Your task to perform on an android device: Show me popular videos on Youtube Image 0: 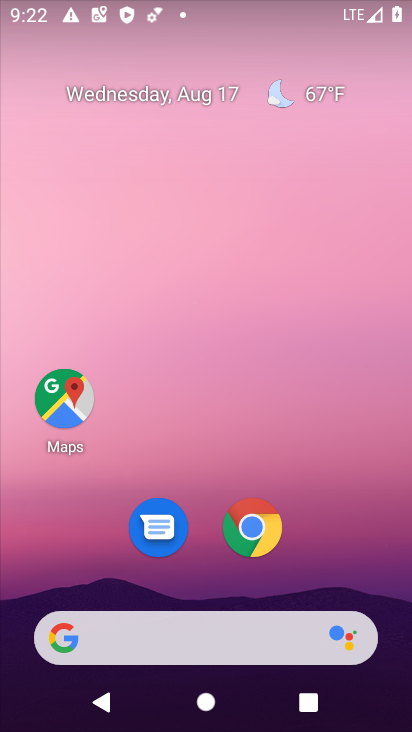
Step 0: drag from (224, 593) to (186, 71)
Your task to perform on an android device: Show me popular videos on Youtube Image 1: 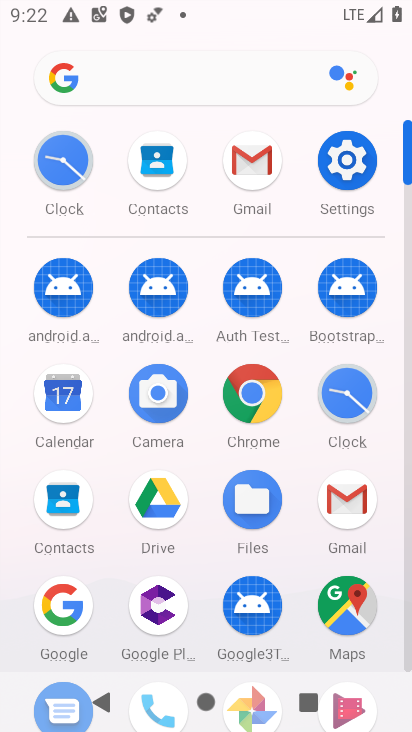
Step 1: drag from (200, 665) to (232, 191)
Your task to perform on an android device: Show me popular videos on Youtube Image 2: 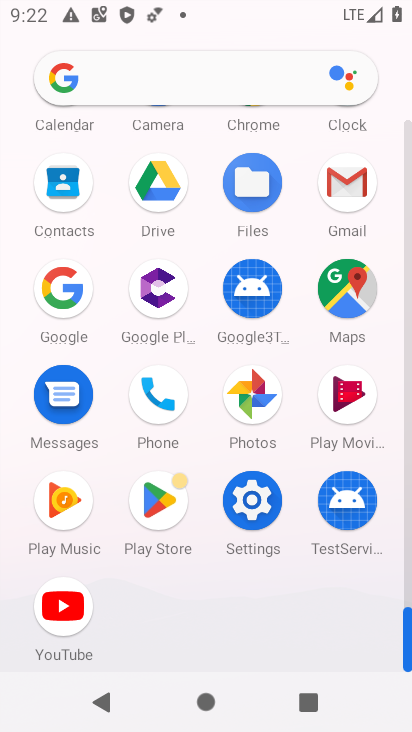
Step 2: click (74, 600)
Your task to perform on an android device: Show me popular videos on Youtube Image 3: 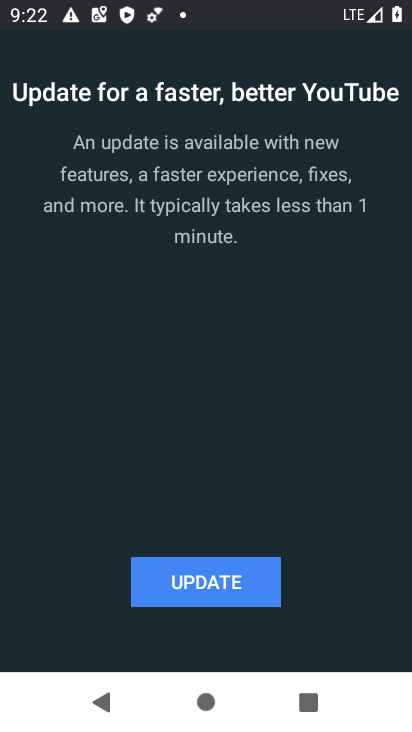
Step 3: click (191, 551)
Your task to perform on an android device: Show me popular videos on Youtube Image 4: 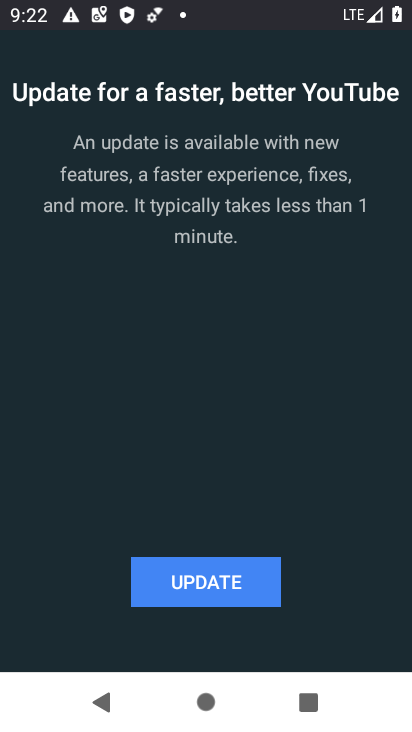
Step 4: click (251, 564)
Your task to perform on an android device: Show me popular videos on Youtube Image 5: 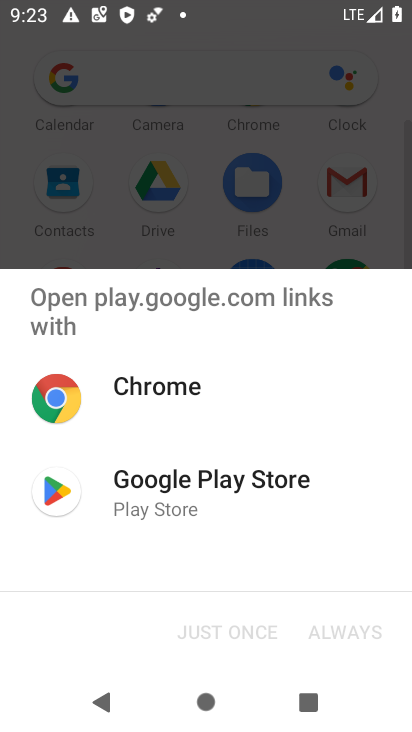
Step 5: click (171, 517)
Your task to perform on an android device: Show me popular videos on Youtube Image 6: 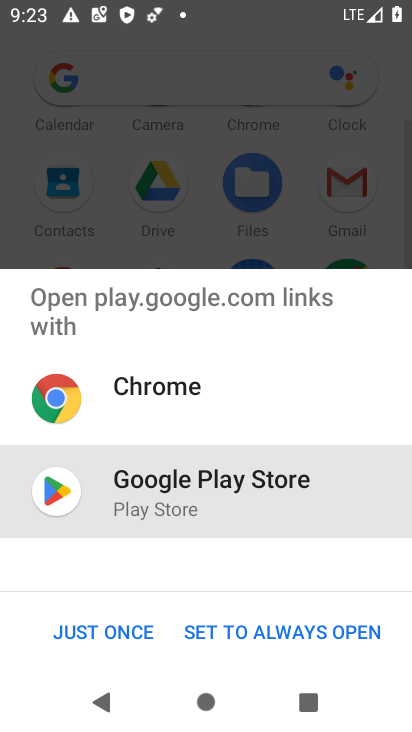
Step 6: click (150, 637)
Your task to perform on an android device: Show me popular videos on Youtube Image 7: 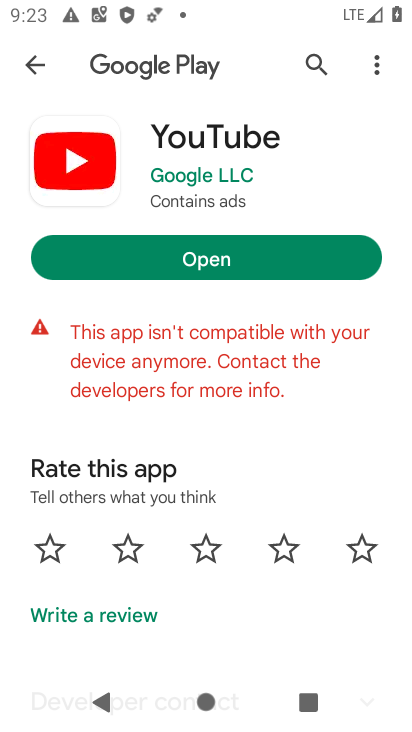
Step 7: click (222, 241)
Your task to perform on an android device: Show me popular videos on Youtube Image 8: 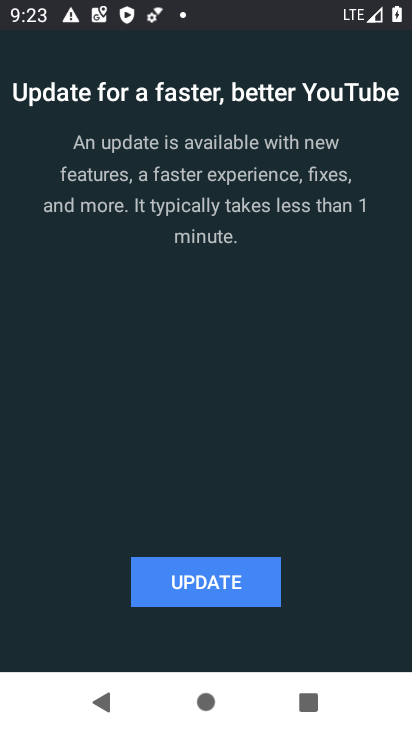
Step 8: task complete